Your task to perform on an android device: find photos in the google photos app Image 0: 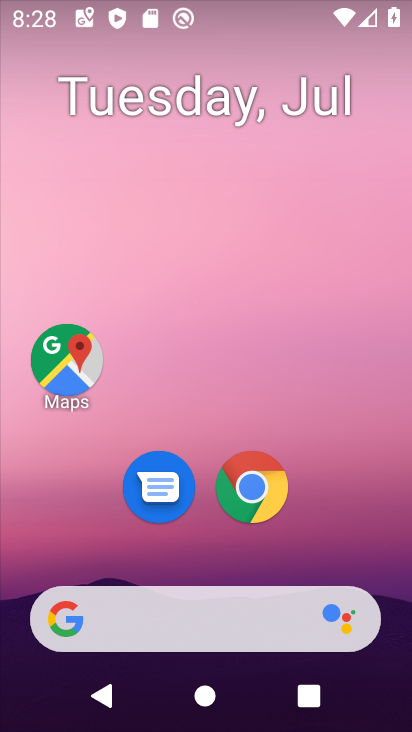
Step 0: drag from (172, 545) to (216, 4)
Your task to perform on an android device: find photos in the google photos app Image 1: 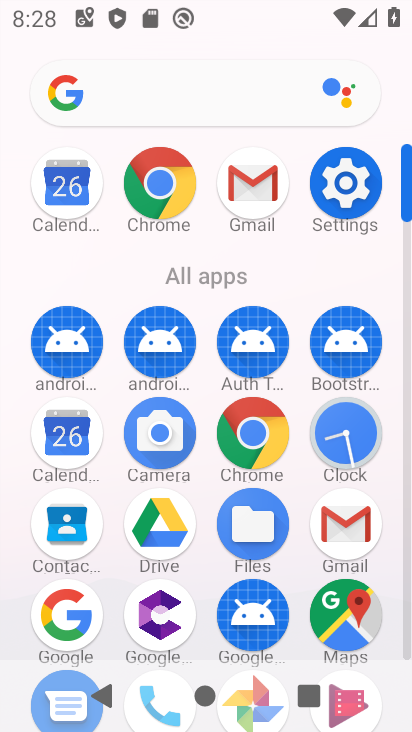
Step 1: drag from (209, 625) to (208, 145)
Your task to perform on an android device: find photos in the google photos app Image 2: 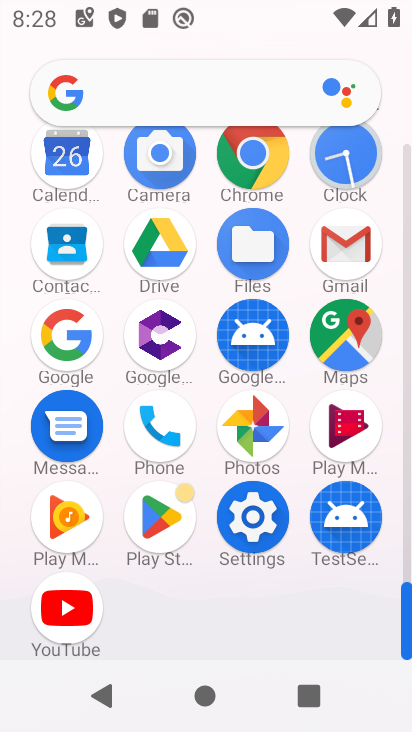
Step 2: click (248, 435)
Your task to perform on an android device: find photos in the google photos app Image 3: 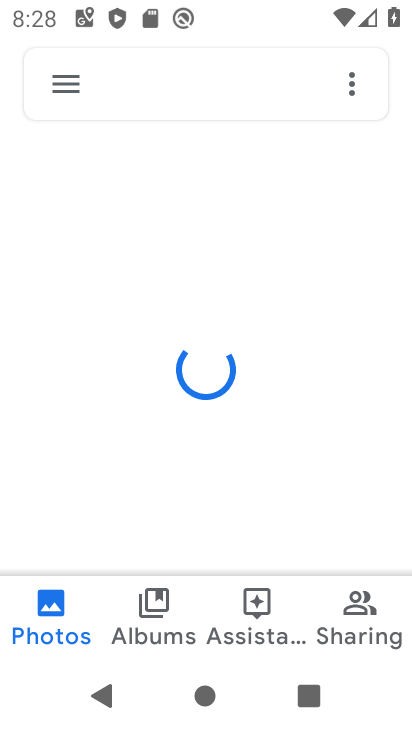
Step 3: click (64, 615)
Your task to perform on an android device: find photos in the google photos app Image 4: 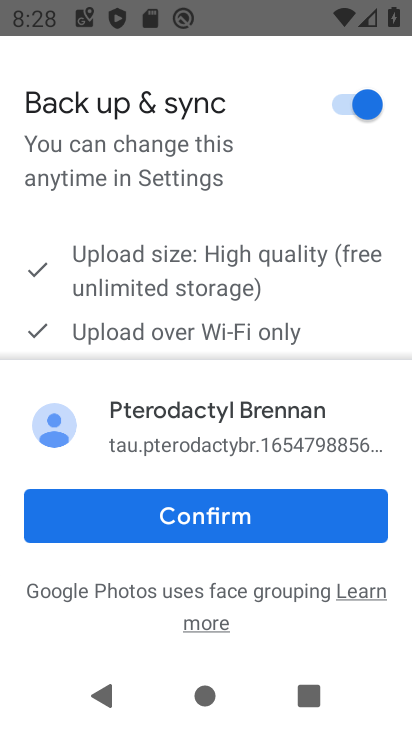
Step 4: click (168, 517)
Your task to perform on an android device: find photos in the google photos app Image 5: 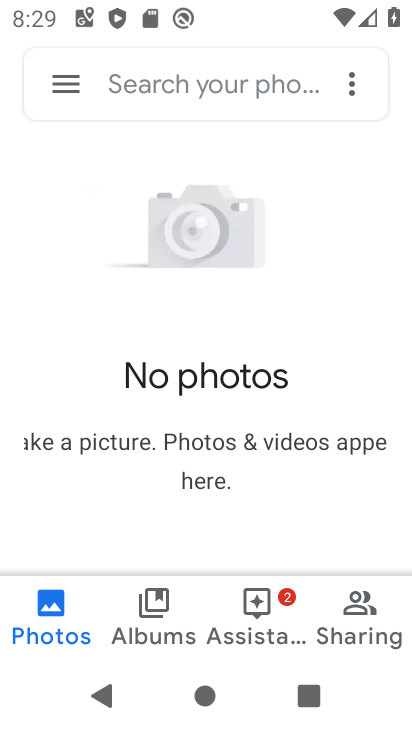
Step 5: click (62, 618)
Your task to perform on an android device: find photos in the google photos app Image 6: 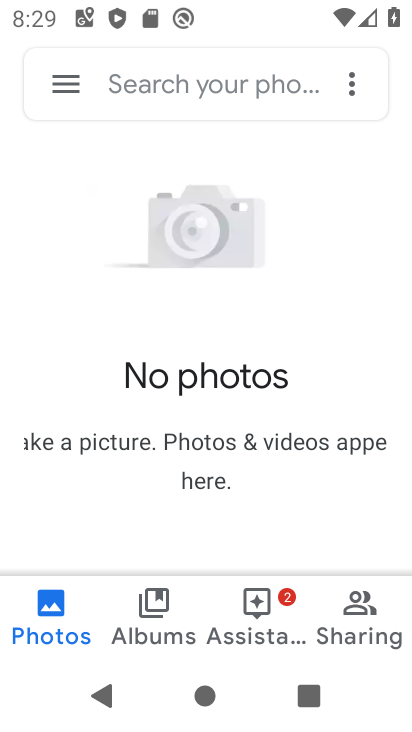
Step 6: task complete